Your task to perform on an android device: visit the assistant section in the google photos Image 0: 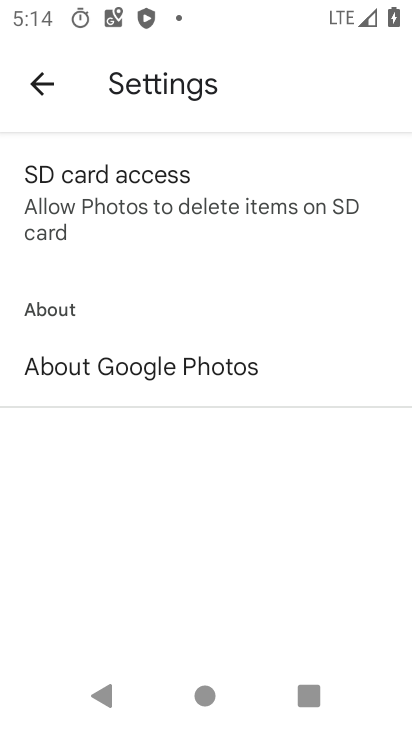
Step 0: press home button
Your task to perform on an android device: visit the assistant section in the google photos Image 1: 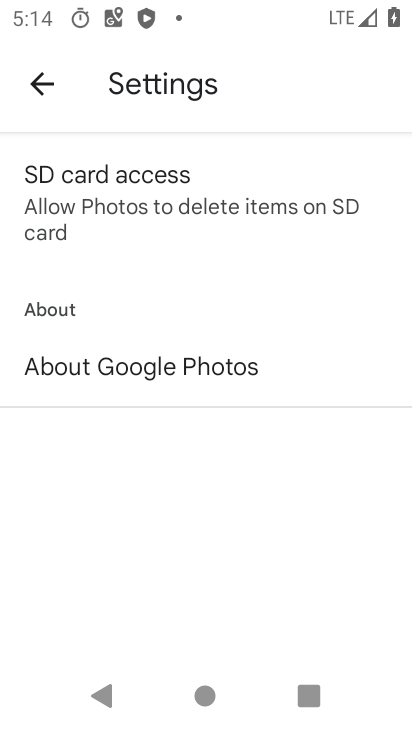
Step 1: press home button
Your task to perform on an android device: visit the assistant section in the google photos Image 2: 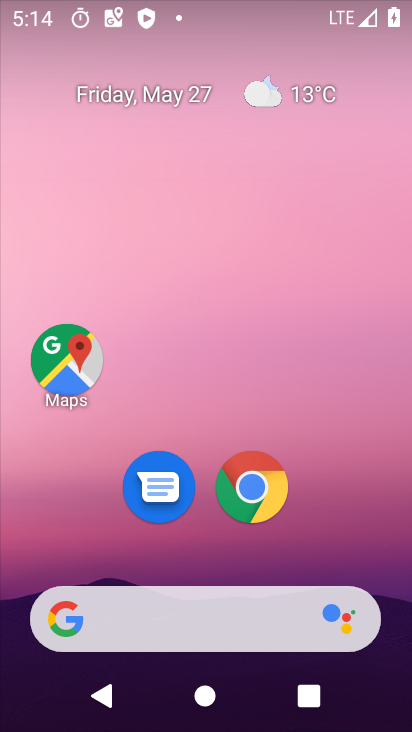
Step 2: drag from (346, 503) to (287, 117)
Your task to perform on an android device: visit the assistant section in the google photos Image 3: 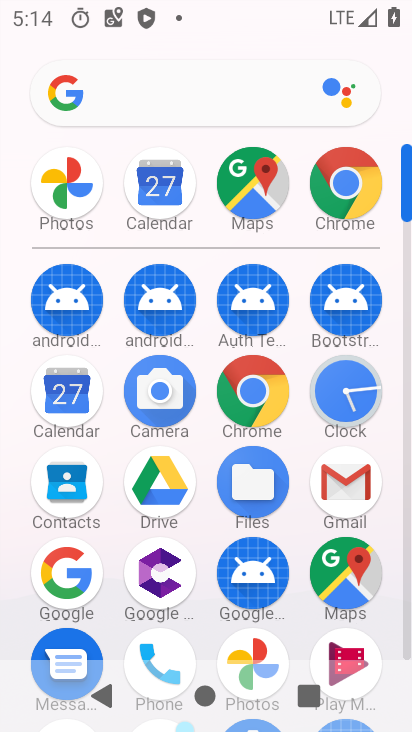
Step 3: click (66, 188)
Your task to perform on an android device: visit the assistant section in the google photos Image 4: 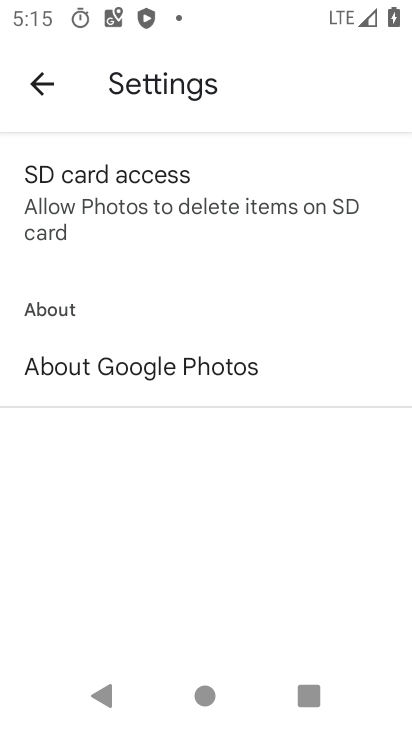
Step 4: click (47, 101)
Your task to perform on an android device: visit the assistant section in the google photos Image 5: 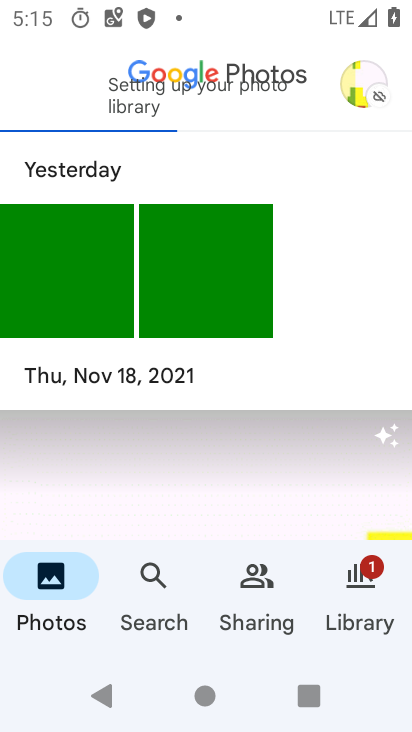
Step 5: click (372, 573)
Your task to perform on an android device: visit the assistant section in the google photos Image 6: 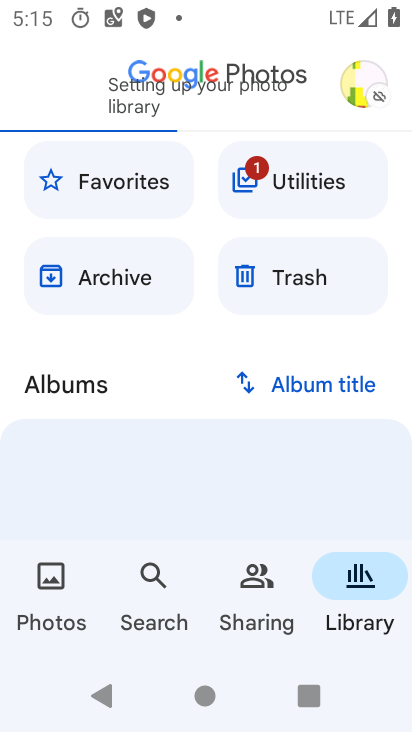
Step 6: click (278, 172)
Your task to perform on an android device: visit the assistant section in the google photos Image 7: 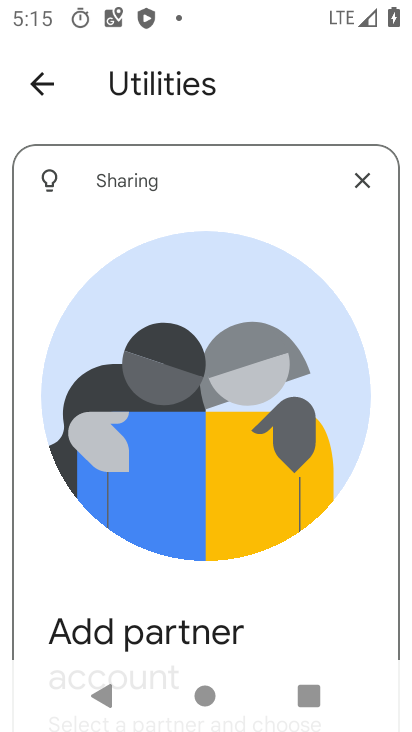
Step 7: task complete